Your task to perform on an android device: Go to Android settings Image 0: 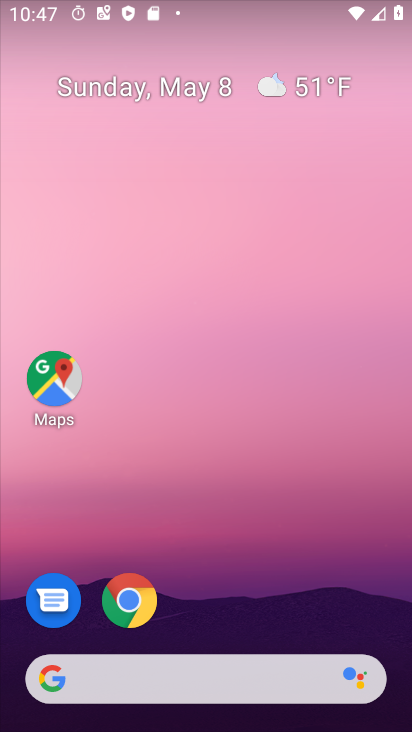
Step 0: drag from (270, 575) to (269, 9)
Your task to perform on an android device: Go to Android settings Image 1: 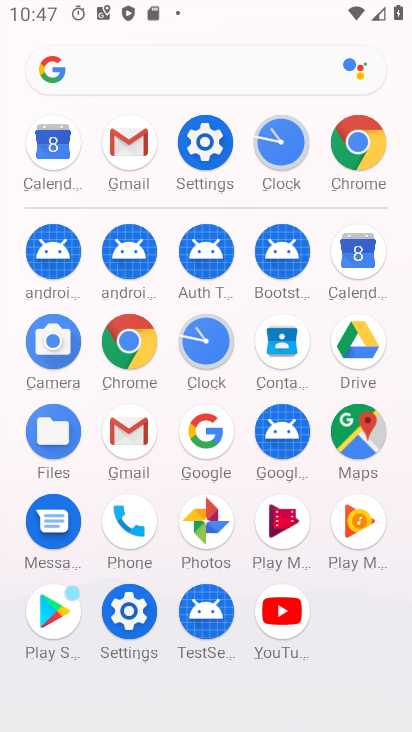
Step 1: click (125, 610)
Your task to perform on an android device: Go to Android settings Image 2: 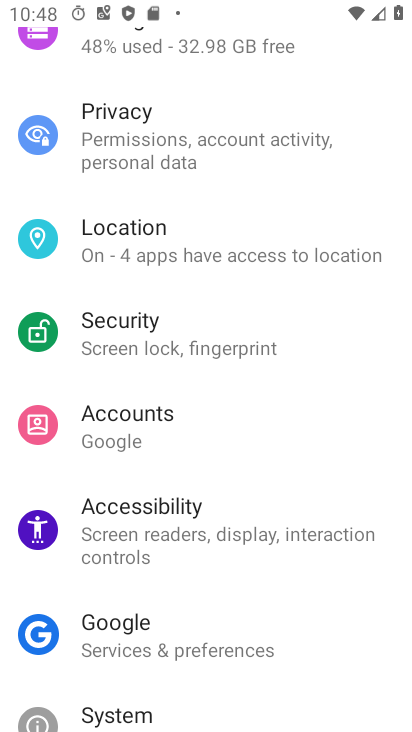
Step 2: task complete